Your task to perform on an android device: change notification settings in the gmail app Image 0: 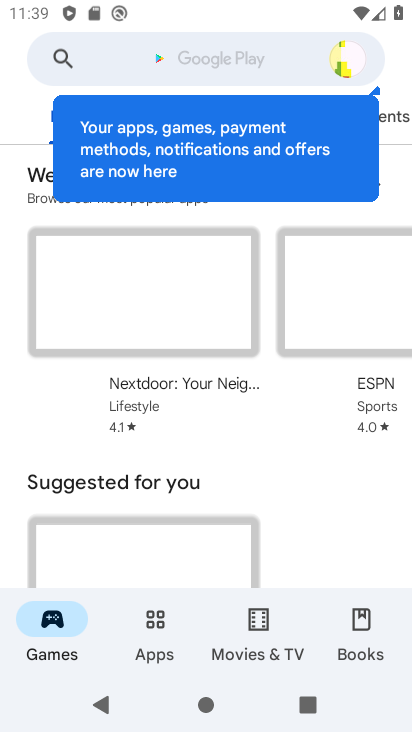
Step 0: press home button
Your task to perform on an android device: change notification settings in the gmail app Image 1: 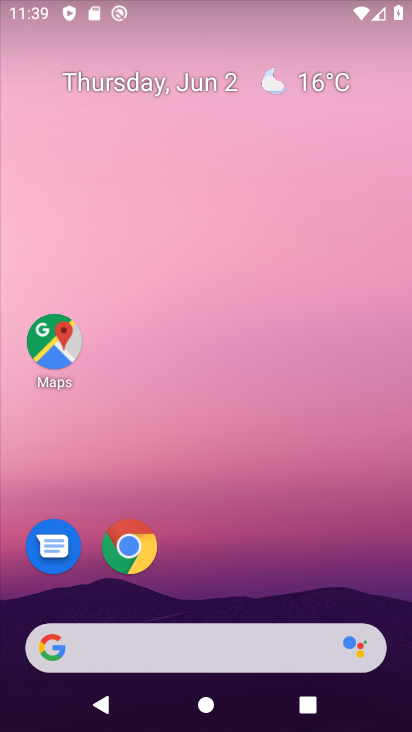
Step 1: drag from (306, 571) to (300, 212)
Your task to perform on an android device: change notification settings in the gmail app Image 2: 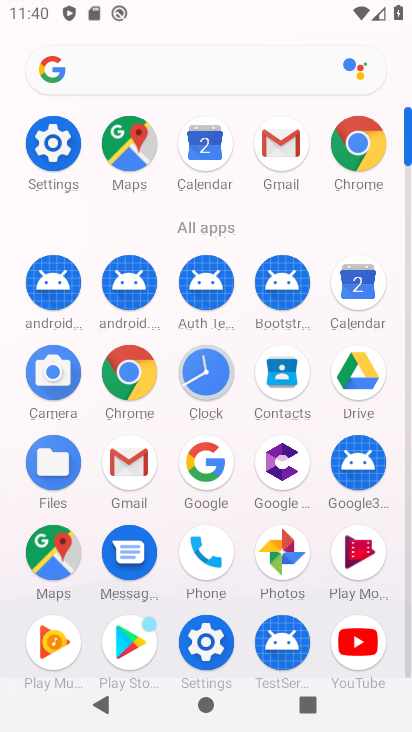
Step 2: click (211, 640)
Your task to perform on an android device: change notification settings in the gmail app Image 3: 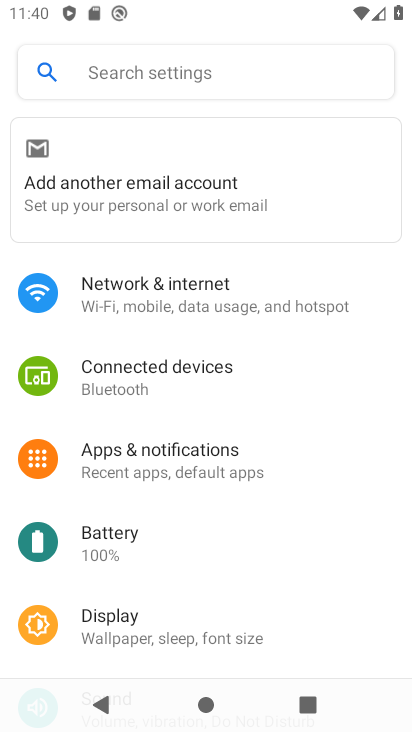
Step 3: click (195, 459)
Your task to perform on an android device: change notification settings in the gmail app Image 4: 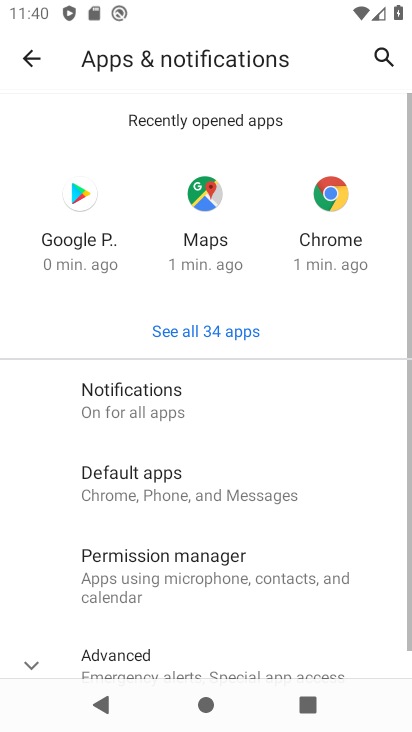
Step 4: click (195, 422)
Your task to perform on an android device: change notification settings in the gmail app Image 5: 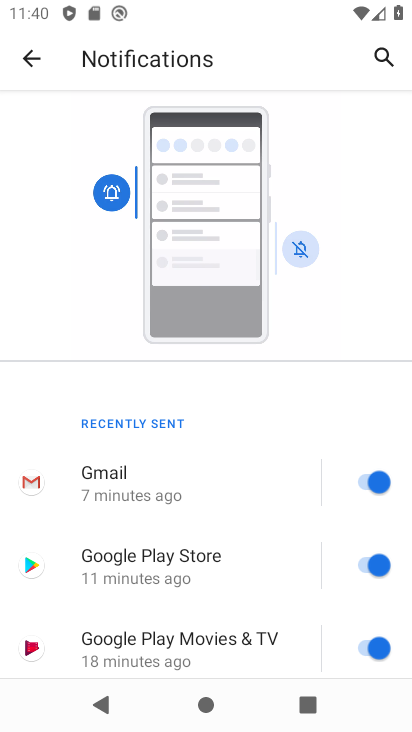
Step 5: task complete